Your task to perform on an android device: Open calendar and show me the fourth week of next month Image 0: 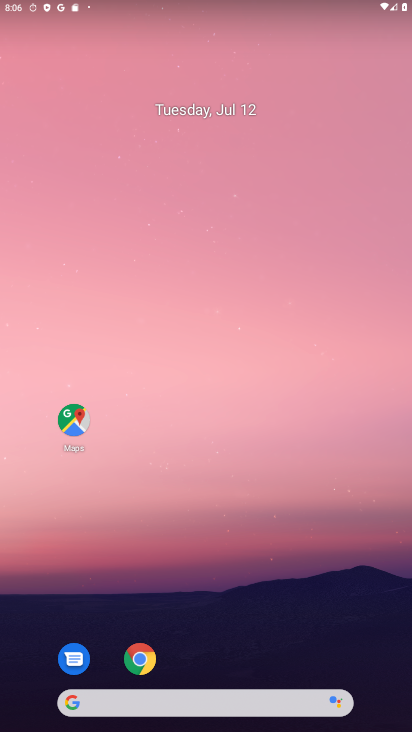
Step 0: drag from (253, 693) to (155, 216)
Your task to perform on an android device: Open calendar and show me the fourth week of next month Image 1: 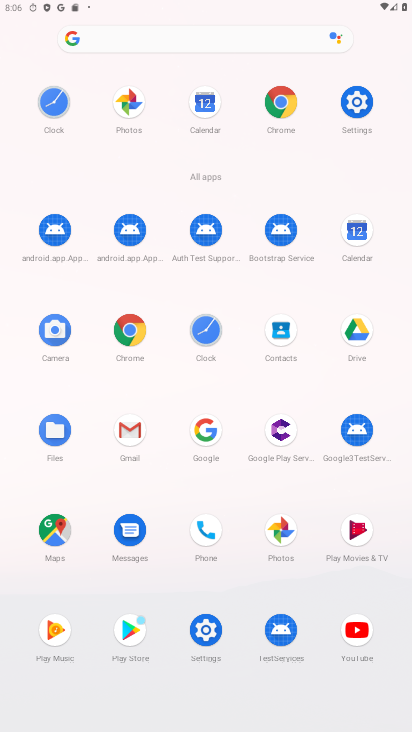
Step 1: click (350, 229)
Your task to perform on an android device: Open calendar and show me the fourth week of next month Image 2: 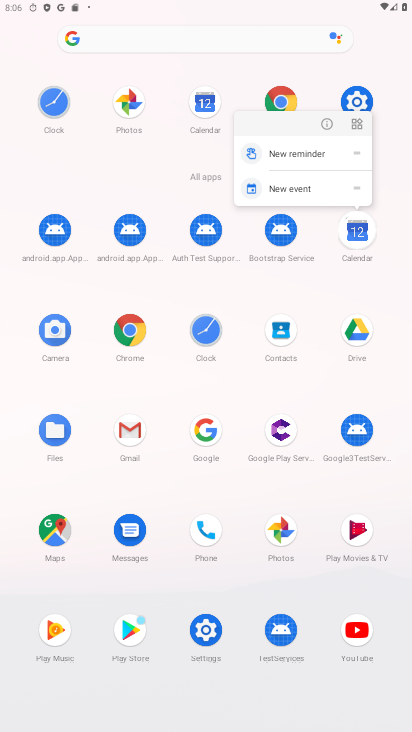
Step 2: click (350, 229)
Your task to perform on an android device: Open calendar and show me the fourth week of next month Image 3: 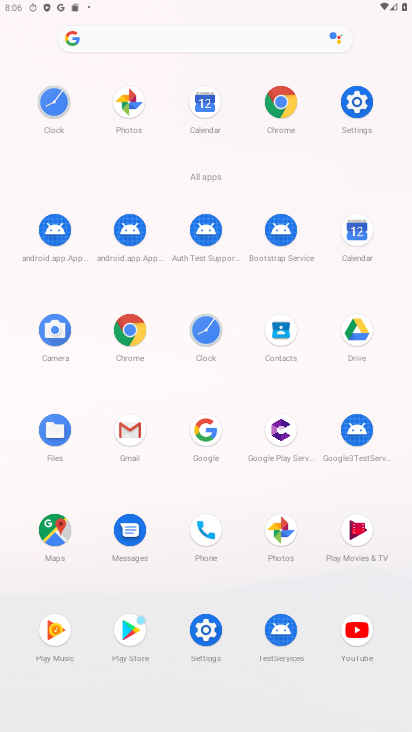
Step 3: click (348, 230)
Your task to perform on an android device: Open calendar and show me the fourth week of next month Image 4: 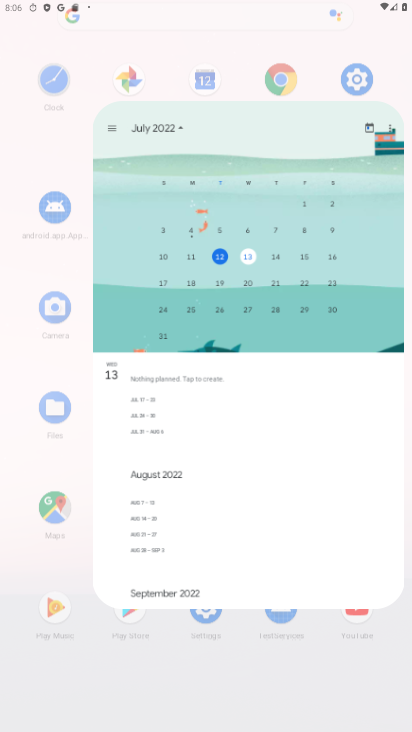
Step 4: click (348, 232)
Your task to perform on an android device: Open calendar and show me the fourth week of next month Image 5: 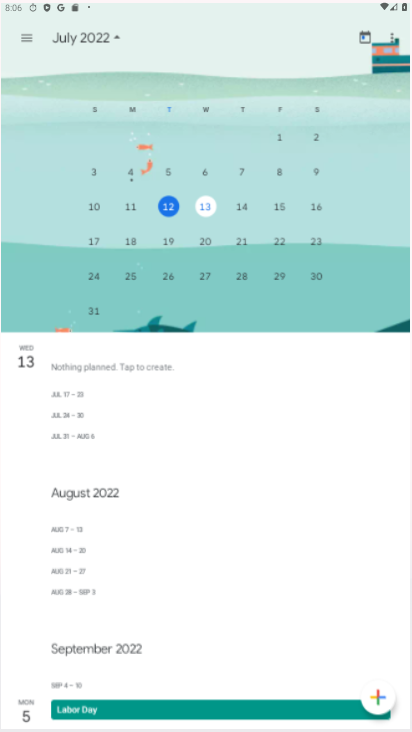
Step 5: click (349, 232)
Your task to perform on an android device: Open calendar and show me the fourth week of next month Image 6: 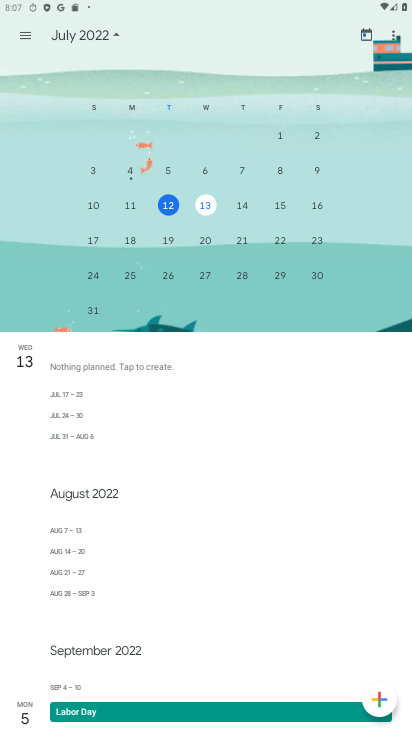
Step 6: click (349, 232)
Your task to perform on an android device: Open calendar and show me the fourth week of next month Image 7: 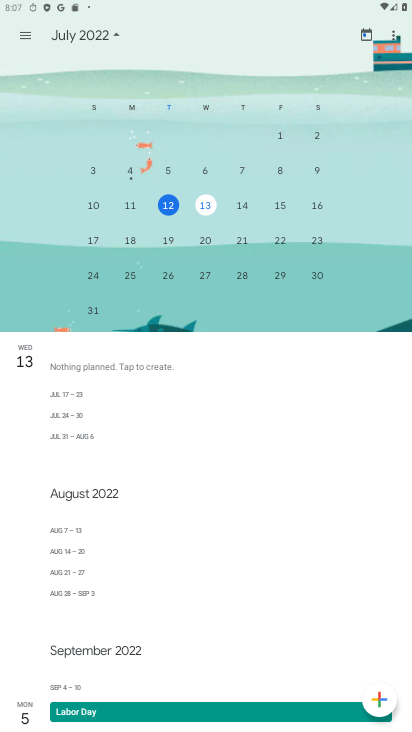
Step 7: drag from (324, 173) to (76, 302)
Your task to perform on an android device: Open calendar and show me the fourth week of next month Image 8: 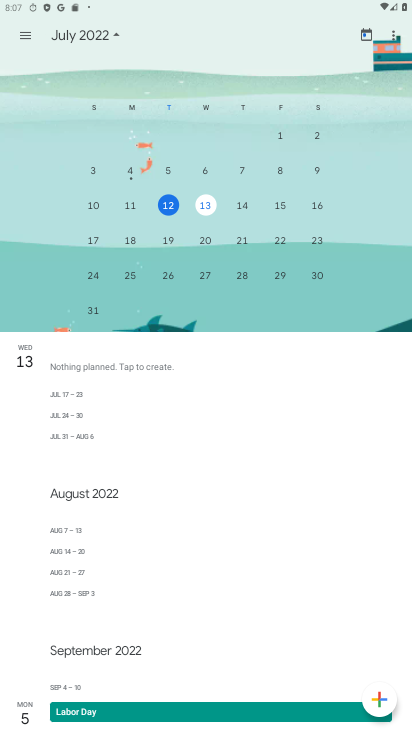
Step 8: drag from (308, 162) to (39, 214)
Your task to perform on an android device: Open calendar and show me the fourth week of next month Image 9: 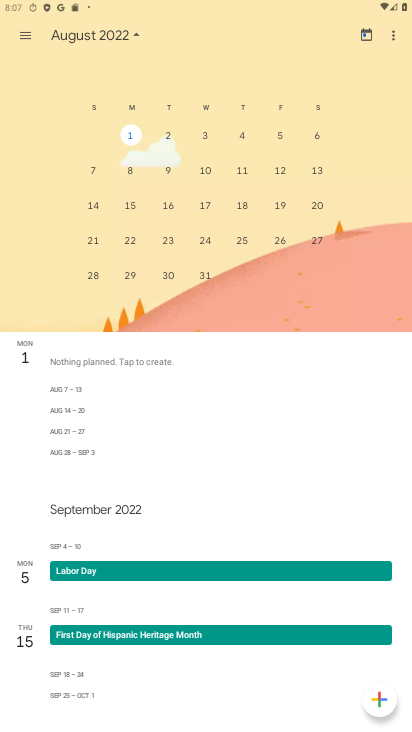
Step 9: click (131, 238)
Your task to perform on an android device: Open calendar and show me the fourth week of next month Image 10: 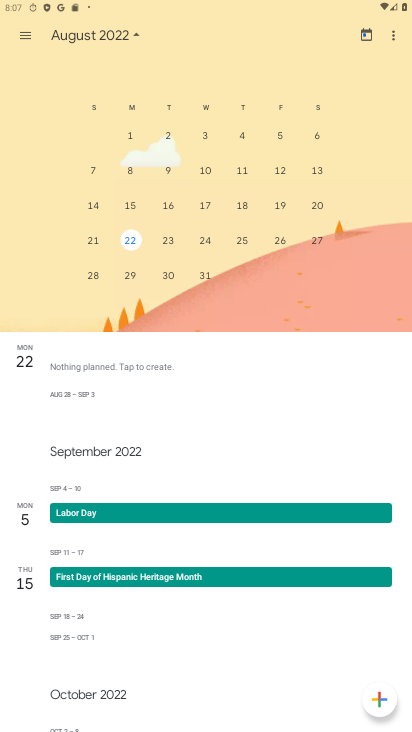
Step 10: click (132, 239)
Your task to perform on an android device: Open calendar and show me the fourth week of next month Image 11: 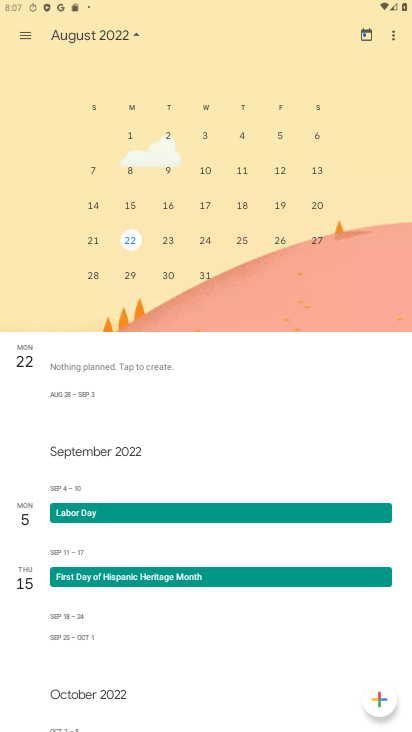
Step 11: click (132, 239)
Your task to perform on an android device: Open calendar and show me the fourth week of next month Image 12: 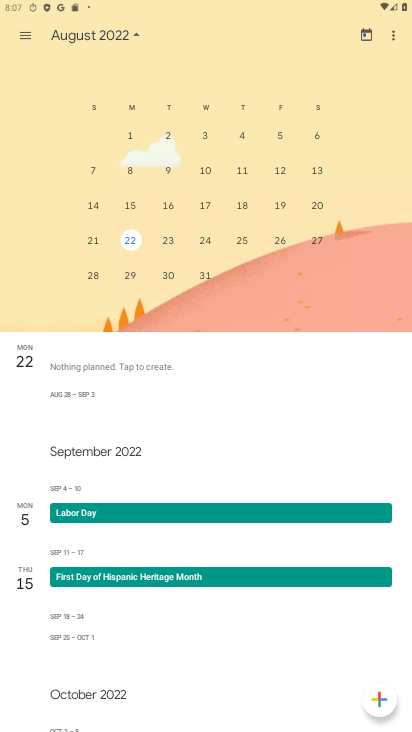
Step 12: task complete